Your task to perform on an android device: change your default location settings in chrome Image 0: 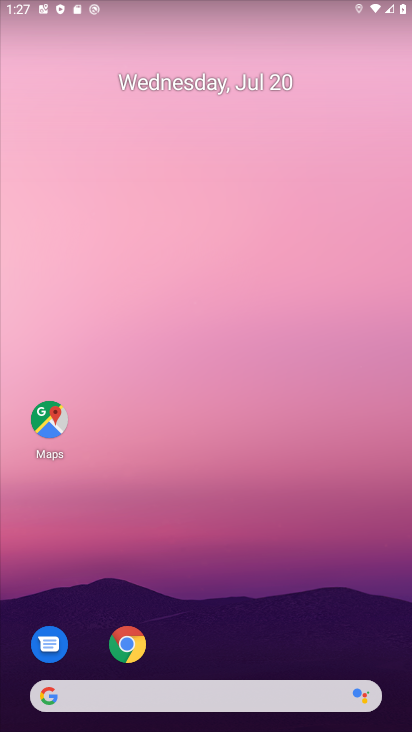
Step 0: press home button
Your task to perform on an android device: change your default location settings in chrome Image 1: 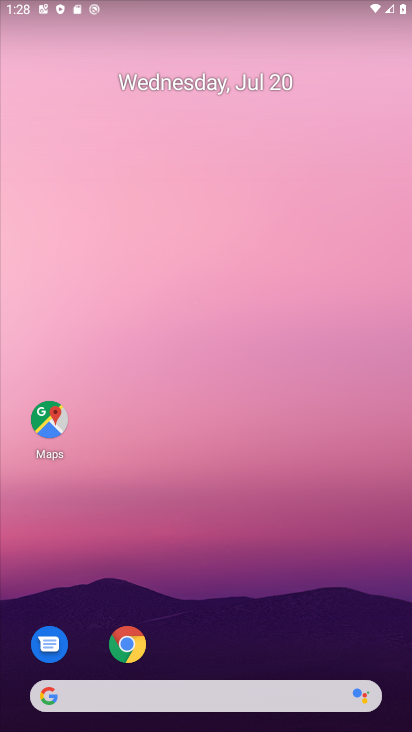
Step 1: drag from (271, 616) to (84, 12)
Your task to perform on an android device: change your default location settings in chrome Image 2: 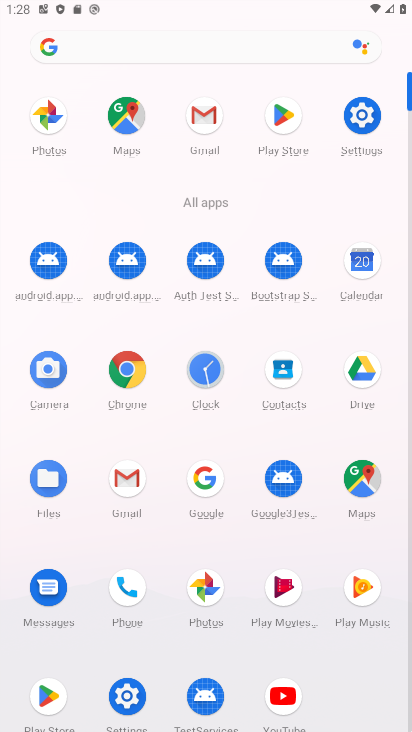
Step 2: click (131, 374)
Your task to perform on an android device: change your default location settings in chrome Image 3: 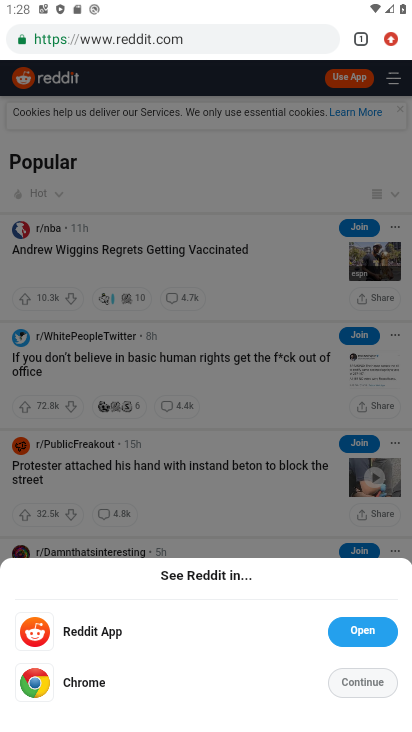
Step 3: drag from (391, 40) to (263, 531)
Your task to perform on an android device: change your default location settings in chrome Image 4: 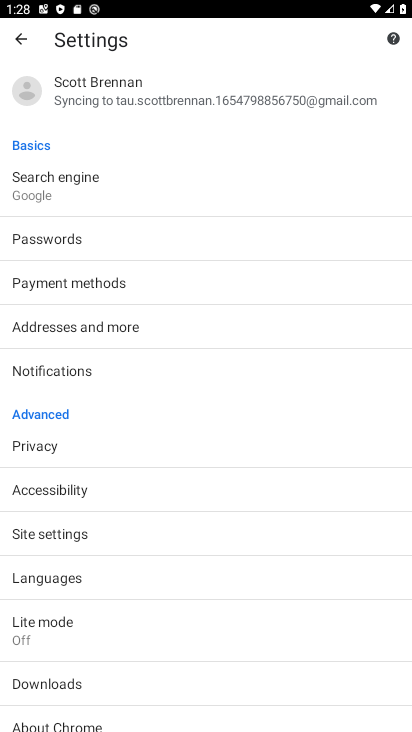
Step 4: click (44, 532)
Your task to perform on an android device: change your default location settings in chrome Image 5: 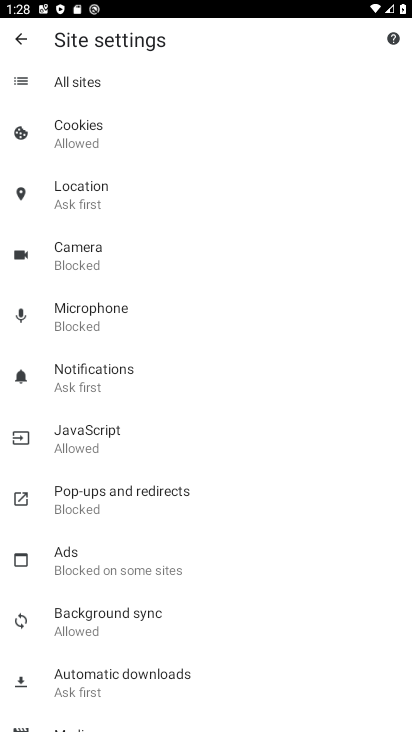
Step 5: click (71, 190)
Your task to perform on an android device: change your default location settings in chrome Image 6: 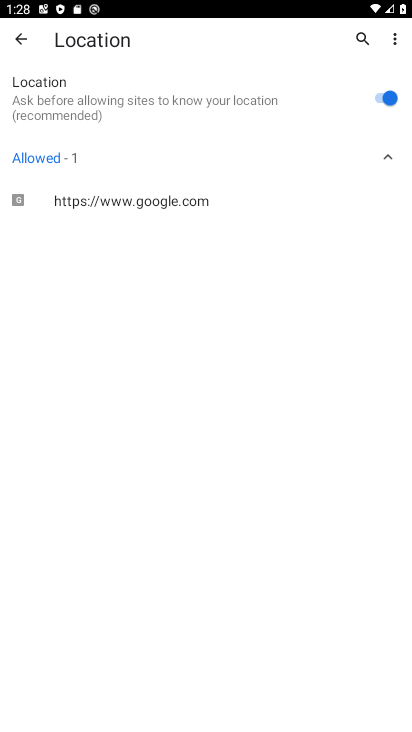
Step 6: click (394, 98)
Your task to perform on an android device: change your default location settings in chrome Image 7: 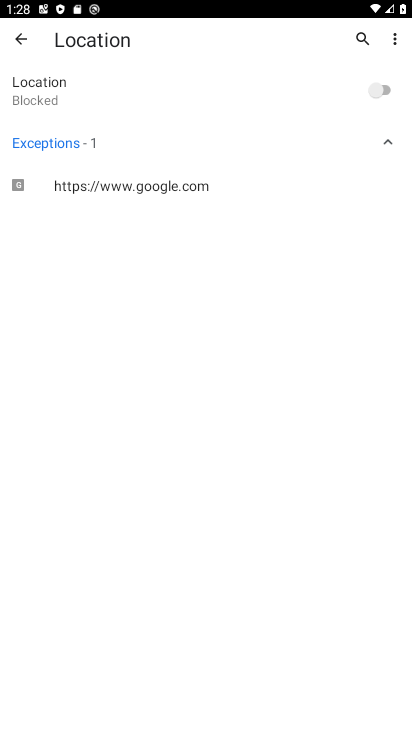
Step 7: task complete